Your task to perform on an android device: Search for Italian restaurants on Maps Image 0: 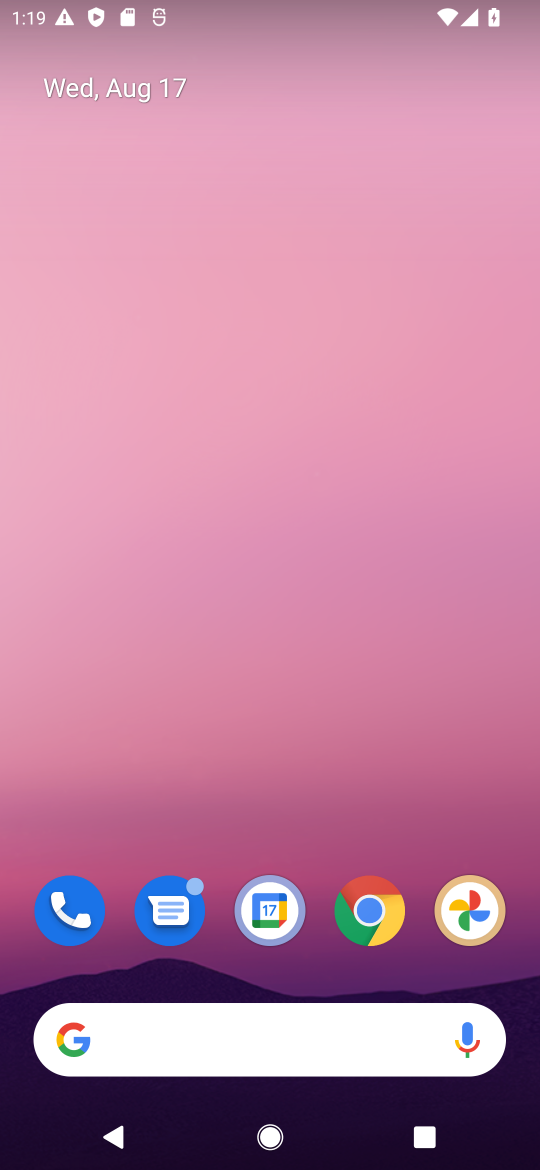
Step 0: drag from (269, 817) to (376, 117)
Your task to perform on an android device: Search for Italian restaurants on Maps Image 1: 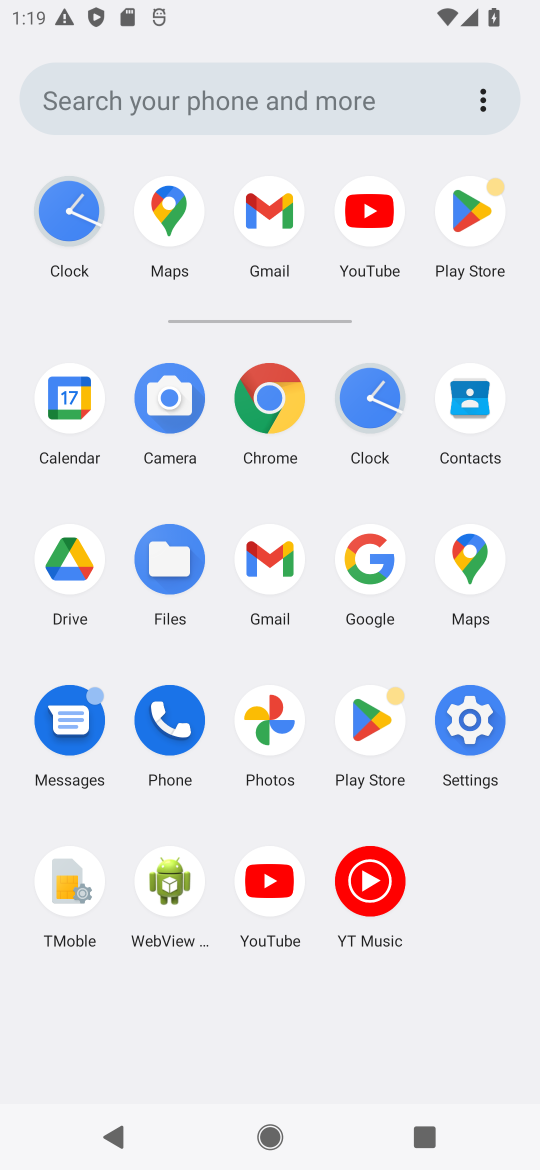
Step 1: click (468, 564)
Your task to perform on an android device: Search for Italian restaurants on Maps Image 2: 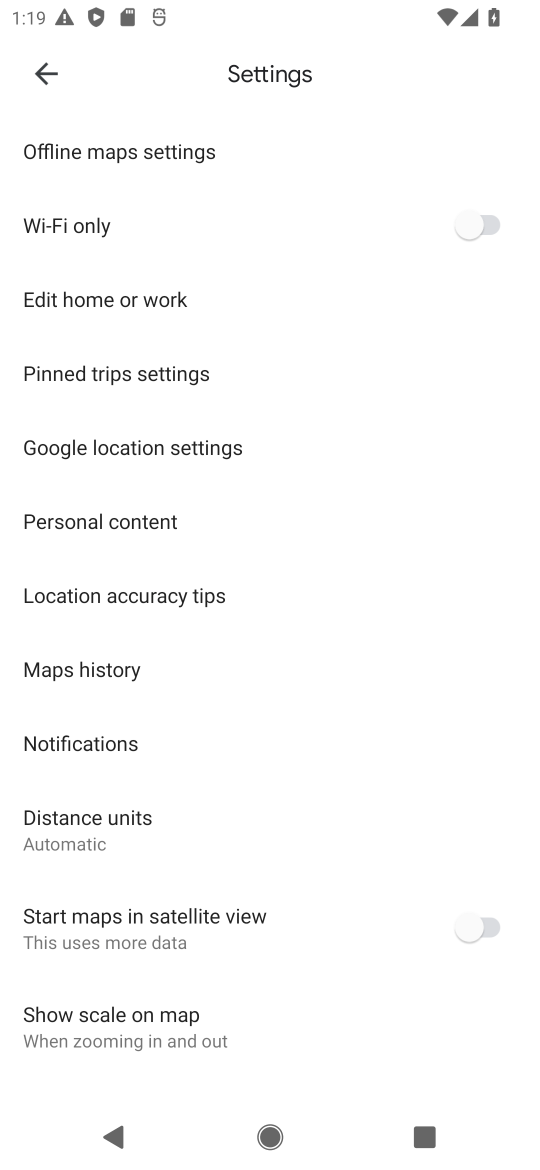
Step 2: press back button
Your task to perform on an android device: Search for Italian restaurants on Maps Image 3: 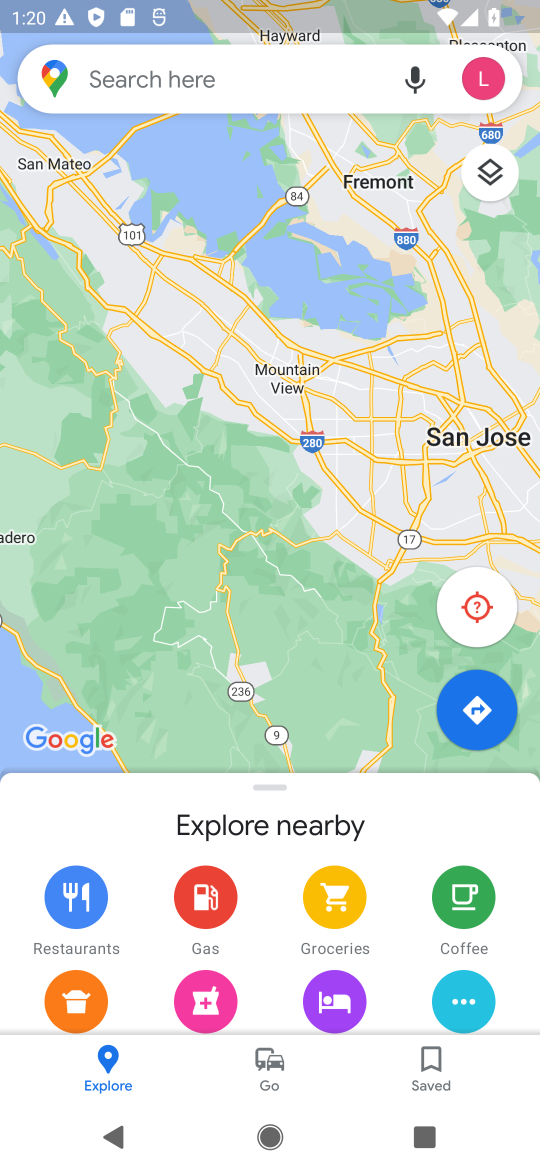
Step 3: click (229, 98)
Your task to perform on an android device: Search for Italian restaurants on Maps Image 4: 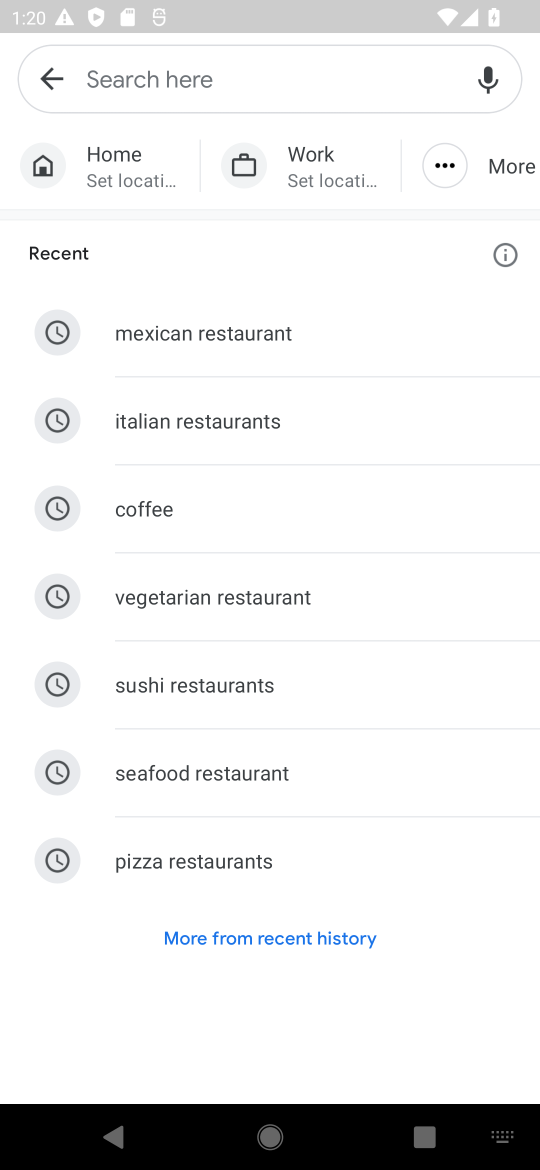
Step 4: click (224, 426)
Your task to perform on an android device: Search for Italian restaurants on Maps Image 5: 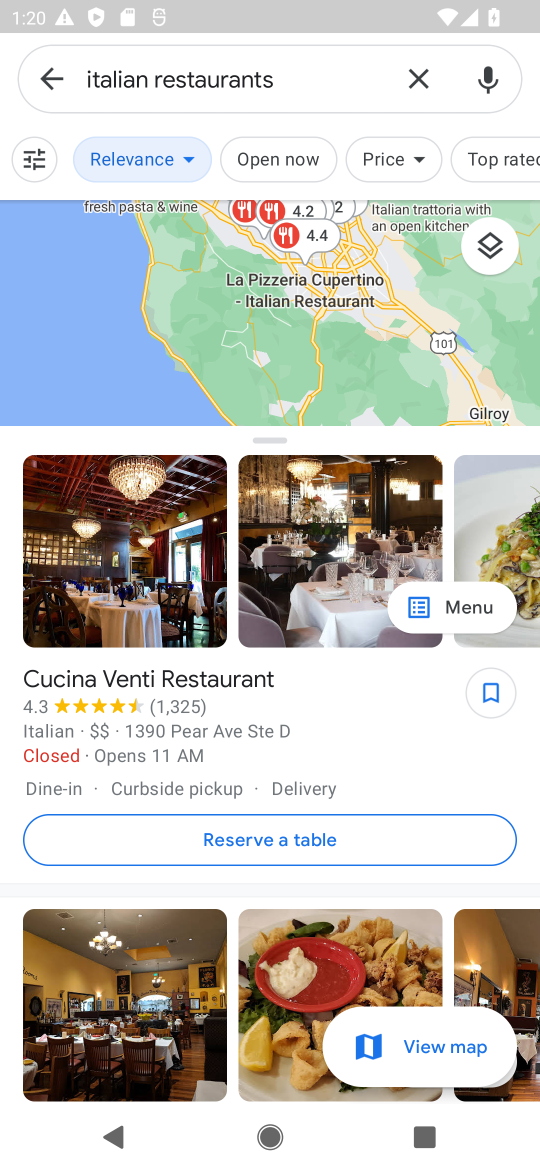
Step 5: task complete